Your task to perform on an android device: Is it going to rain tomorrow? Image 0: 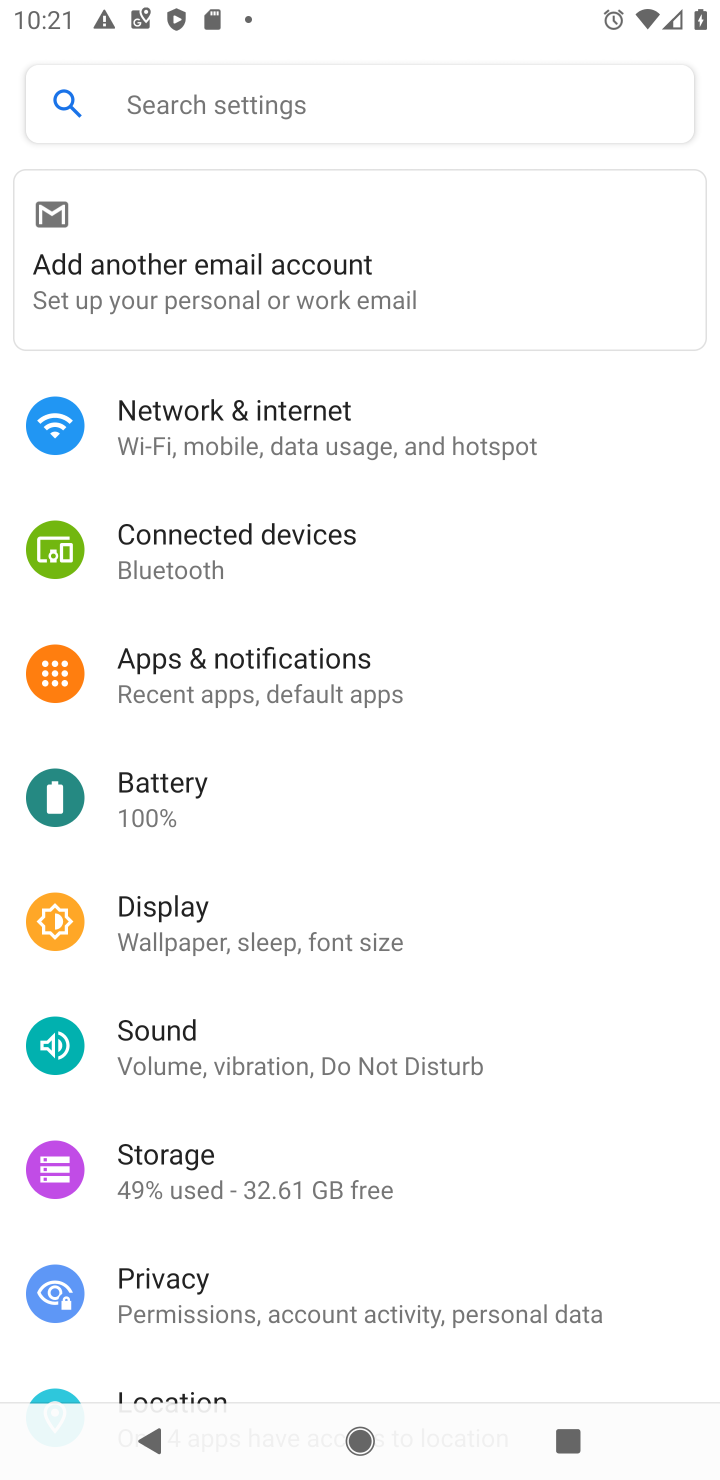
Step 0: press home button
Your task to perform on an android device: Is it going to rain tomorrow? Image 1: 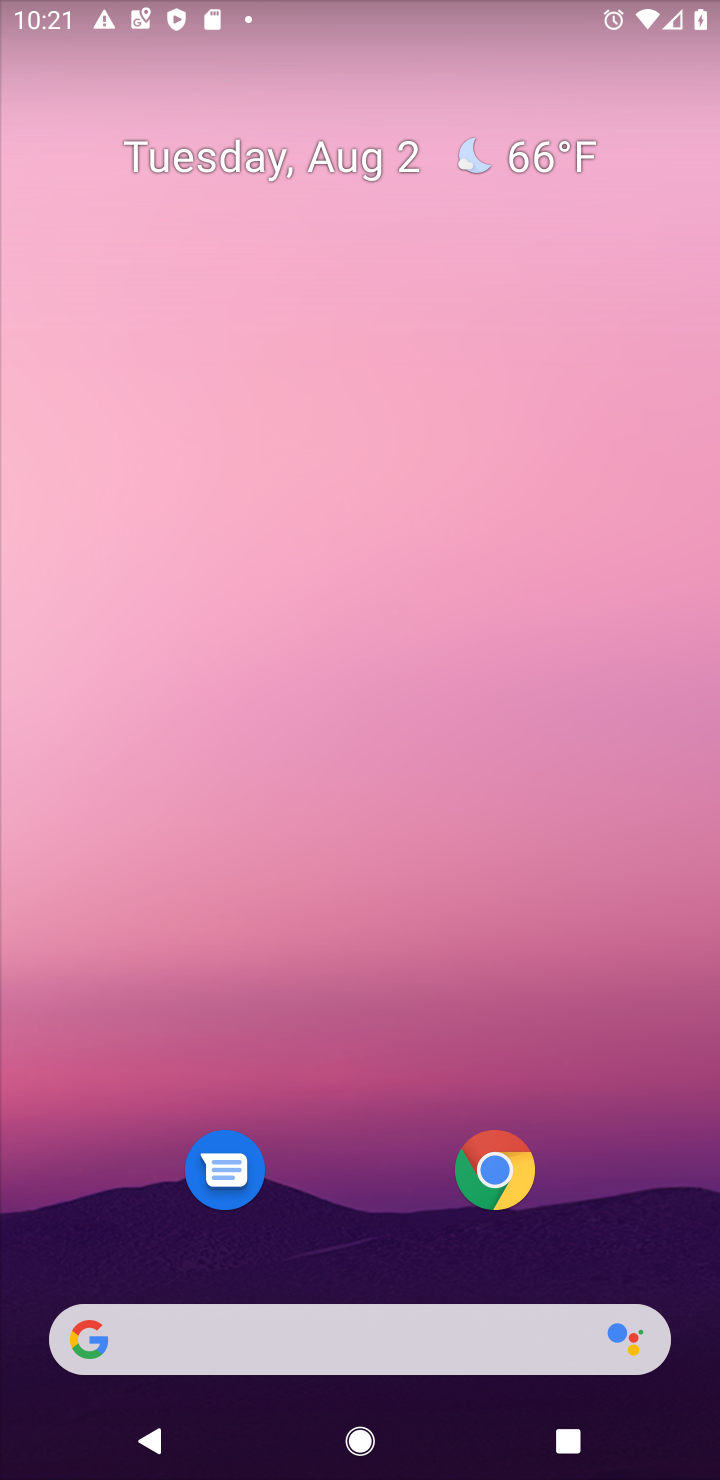
Step 1: drag from (363, 1234) to (304, 367)
Your task to perform on an android device: Is it going to rain tomorrow? Image 2: 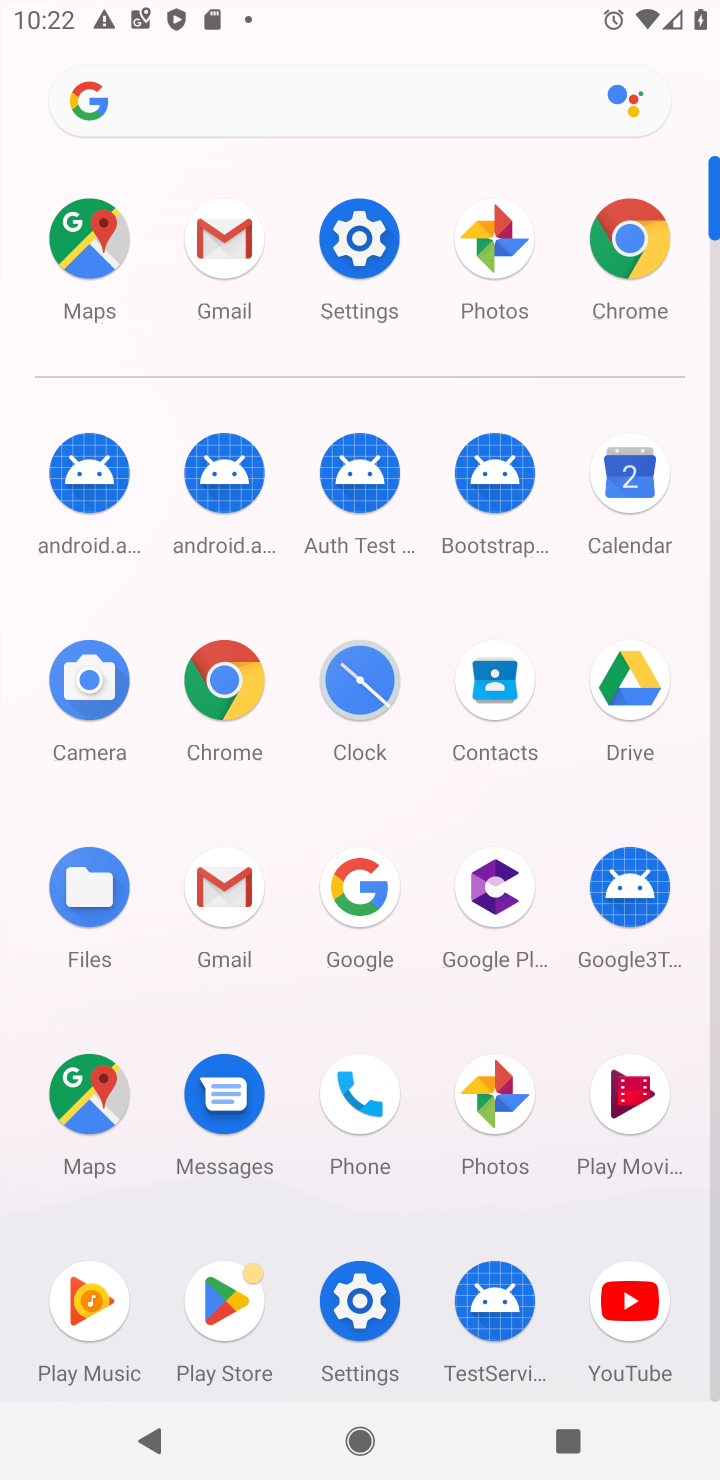
Step 2: click (363, 951)
Your task to perform on an android device: Is it going to rain tomorrow? Image 3: 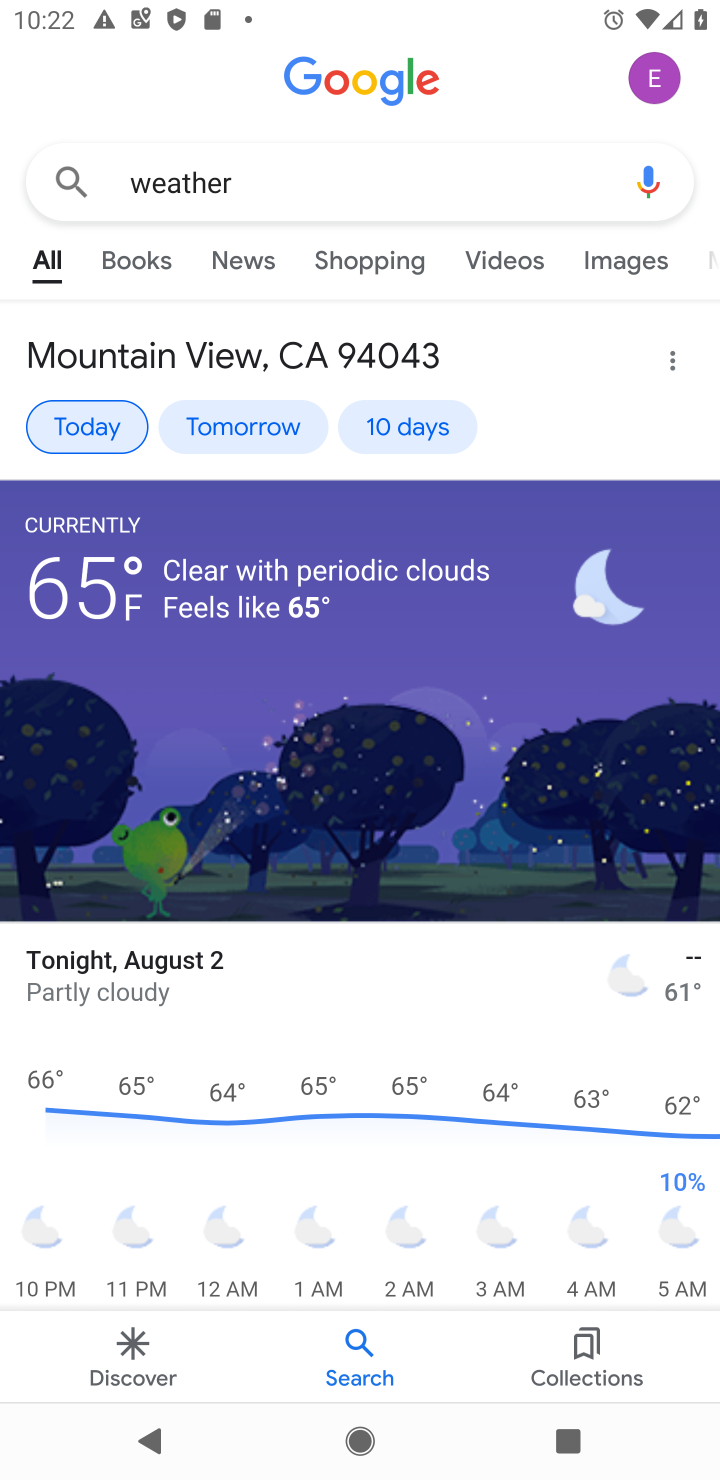
Step 3: click (223, 418)
Your task to perform on an android device: Is it going to rain tomorrow? Image 4: 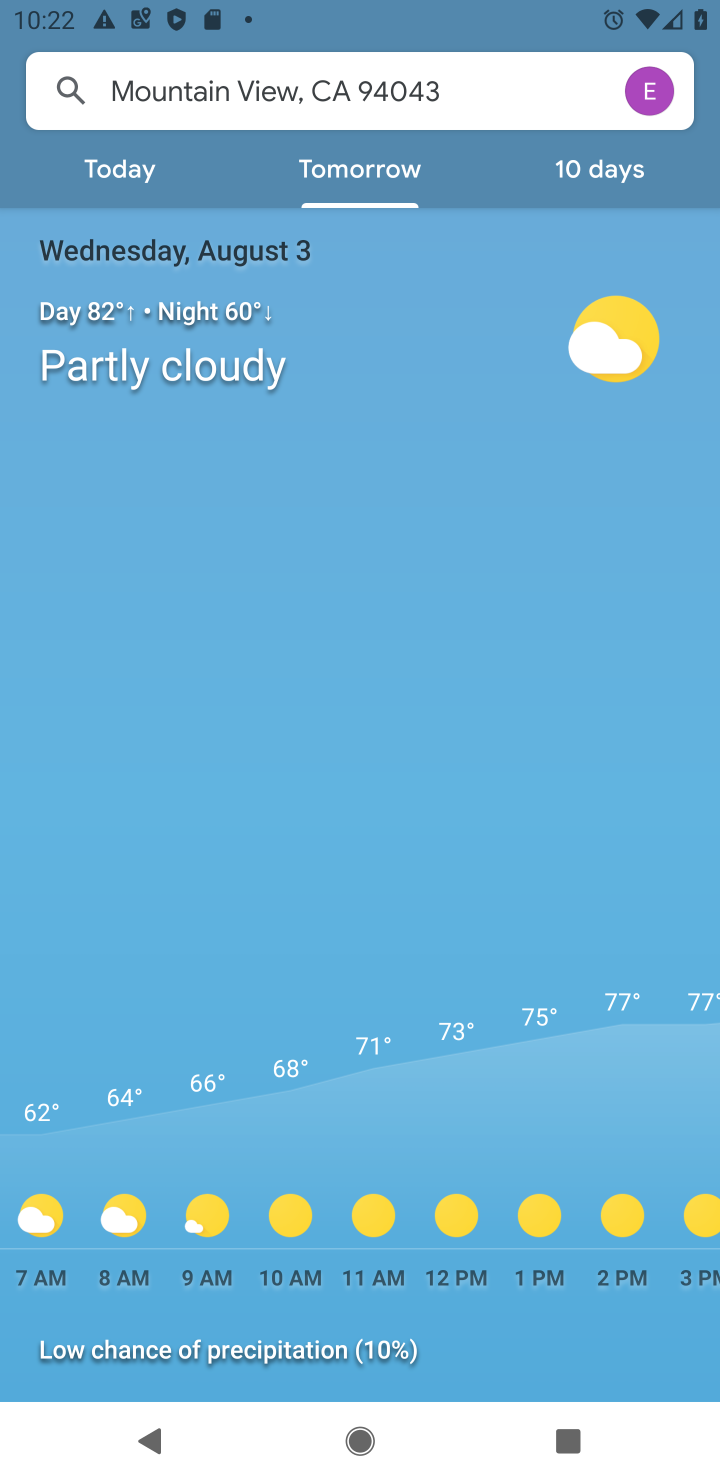
Step 4: task complete